Your task to perform on an android device: Open accessibility settings Image 0: 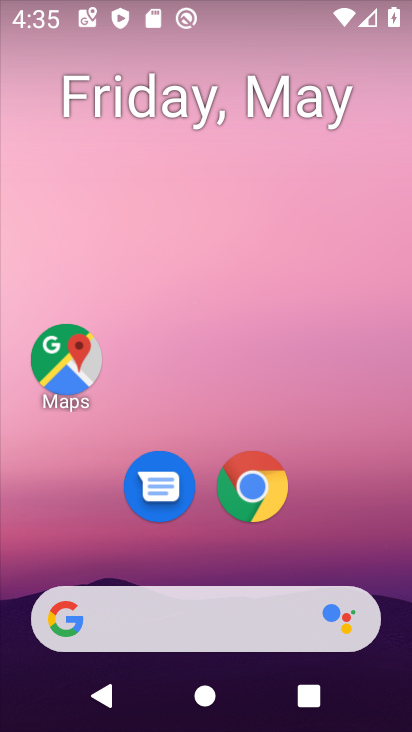
Step 0: drag from (339, 474) to (160, 1)
Your task to perform on an android device: Open accessibility settings Image 1: 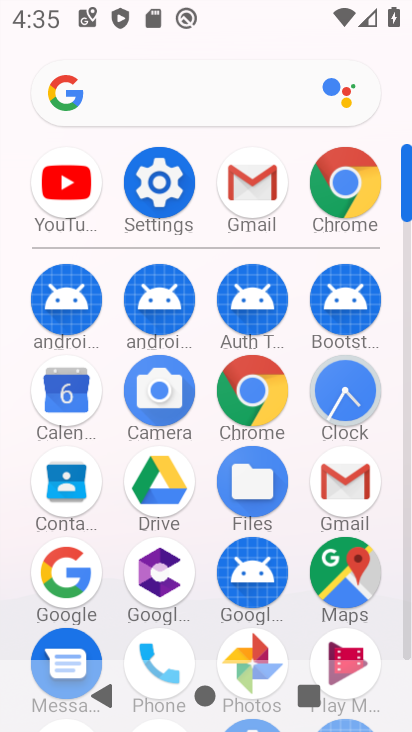
Step 1: drag from (15, 560) to (13, 175)
Your task to perform on an android device: Open accessibility settings Image 2: 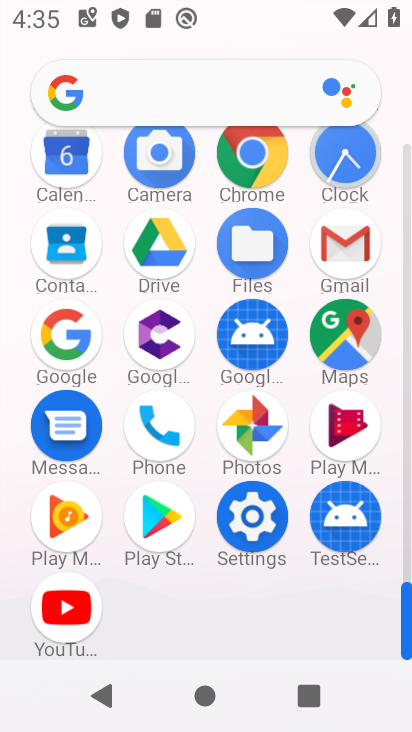
Step 2: click (255, 510)
Your task to perform on an android device: Open accessibility settings Image 3: 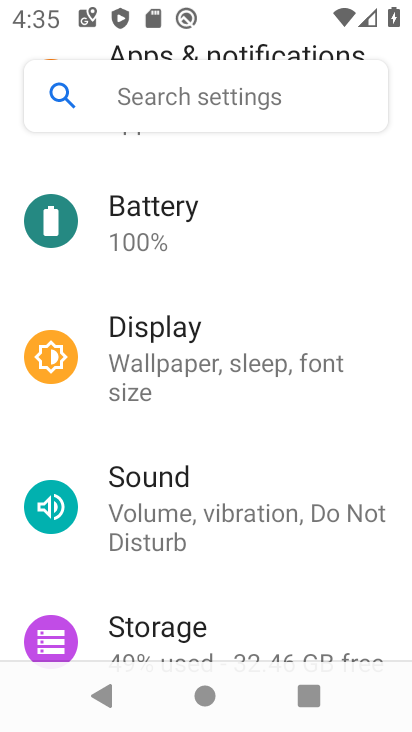
Step 3: drag from (242, 552) to (282, 132)
Your task to perform on an android device: Open accessibility settings Image 4: 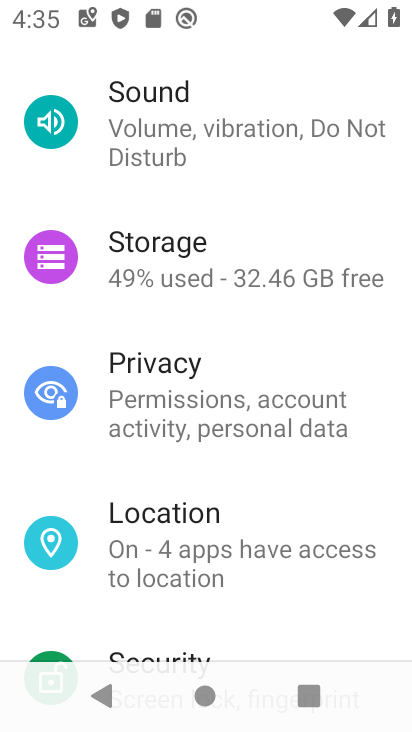
Step 4: drag from (236, 495) to (236, 103)
Your task to perform on an android device: Open accessibility settings Image 5: 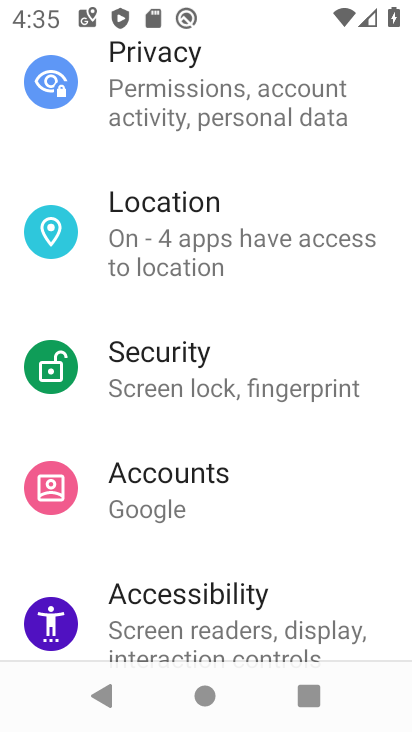
Step 5: drag from (221, 532) to (249, 139)
Your task to perform on an android device: Open accessibility settings Image 6: 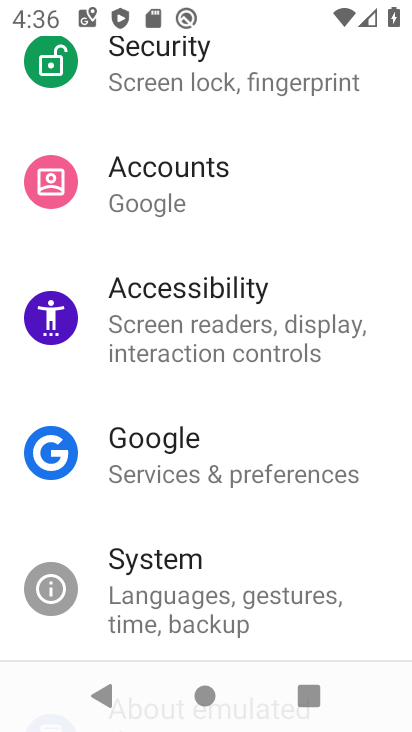
Step 6: drag from (259, 558) to (264, 100)
Your task to perform on an android device: Open accessibility settings Image 7: 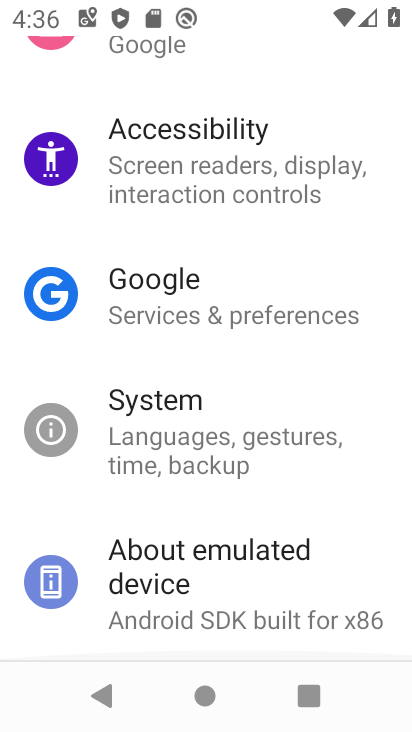
Step 7: click (253, 156)
Your task to perform on an android device: Open accessibility settings Image 8: 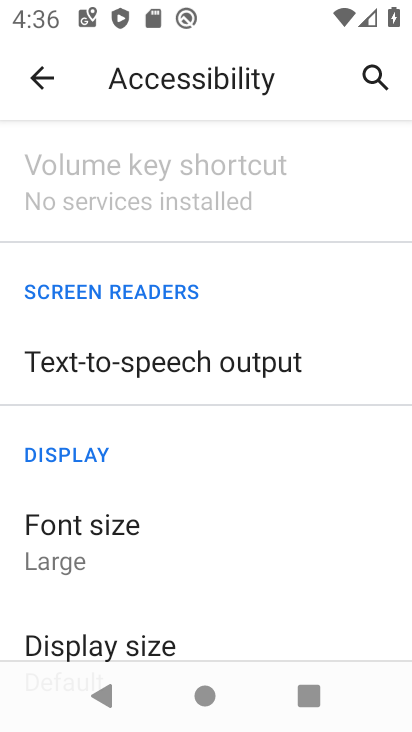
Step 8: task complete